Your task to perform on an android device: Open privacy settings Image 0: 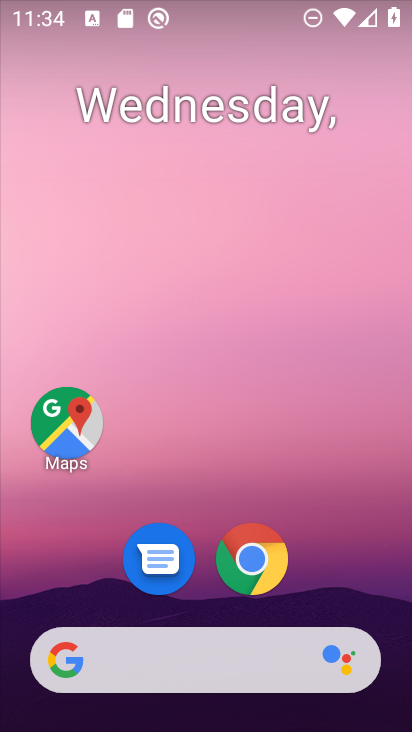
Step 0: drag from (265, 300) to (287, 157)
Your task to perform on an android device: Open privacy settings Image 1: 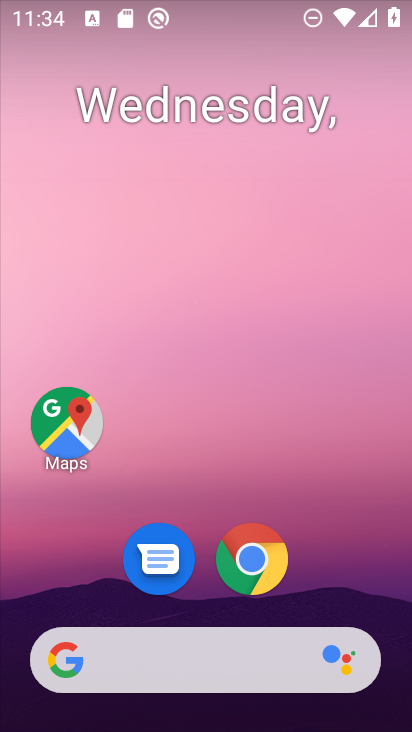
Step 1: drag from (236, 552) to (344, 25)
Your task to perform on an android device: Open privacy settings Image 2: 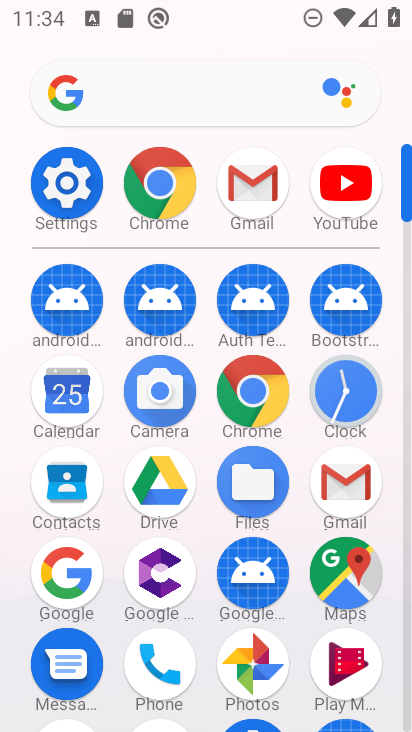
Step 2: click (65, 196)
Your task to perform on an android device: Open privacy settings Image 3: 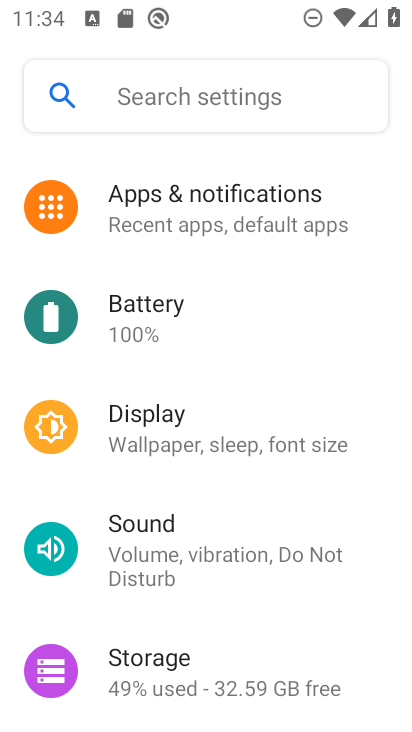
Step 3: drag from (194, 625) to (224, 275)
Your task to perform on an android device: Open privacy settings Image 4: 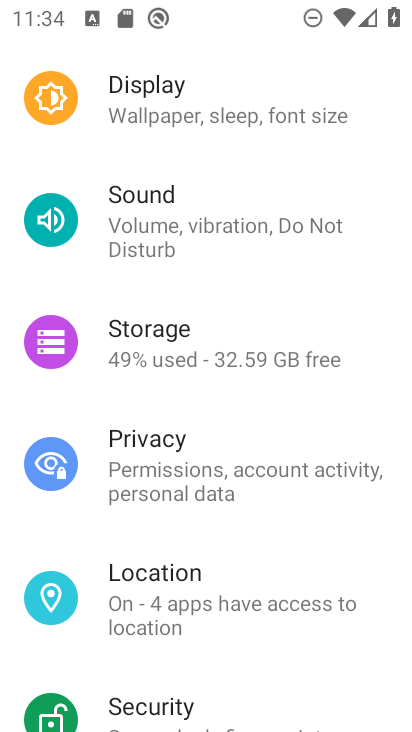
Step 4: drag from (168, 578) to (292, 125)
Your task to perform on an android device: Open privacy settings Image 5: 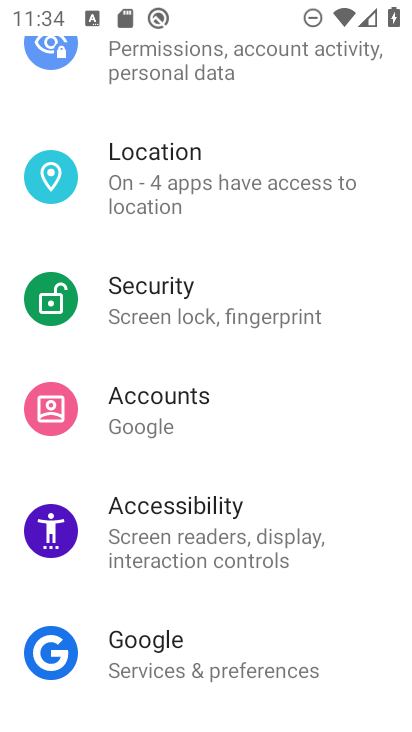
Step 5: drag from (221, 215) to (229, 181)
Your task to perform on an android device: Open privacy settings Image 6: 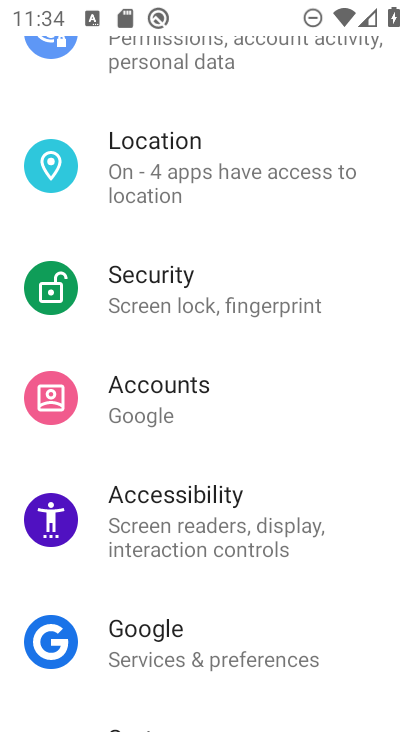
Step 6: drag from (206, 522) to (231, 163)
Your task to perform on an android device: Open privacy settings Image 7: 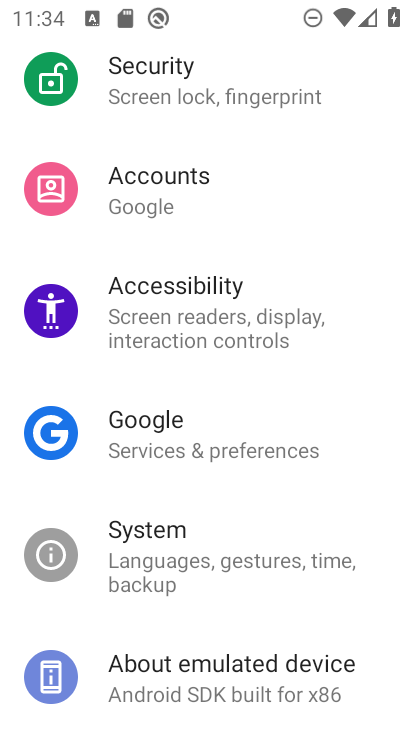
Step 7: drag from (215, 216) to (171, 607)
Your task to perform on an android device: Open privacy settings Image 8: 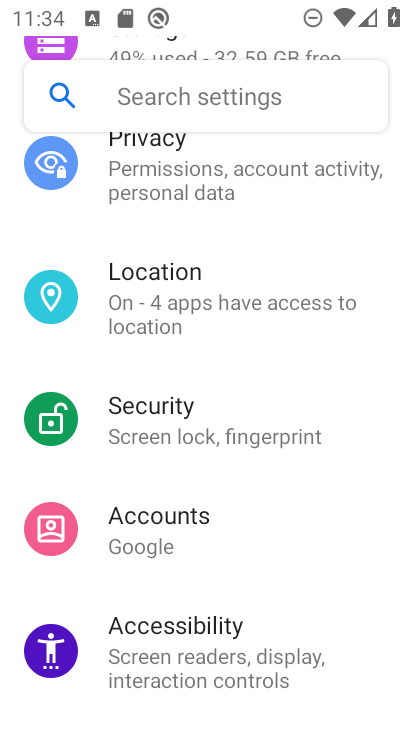
Step 8: click (225, 181)
Your task to perform on an android device: Open privacy settings Image 9: 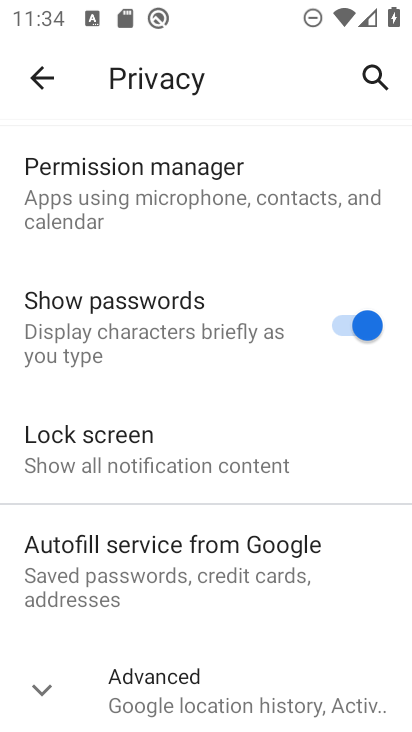
Step 9: task complete